Your task to perform on an android device: Add dell xps to the cart on costco.com Image 0: 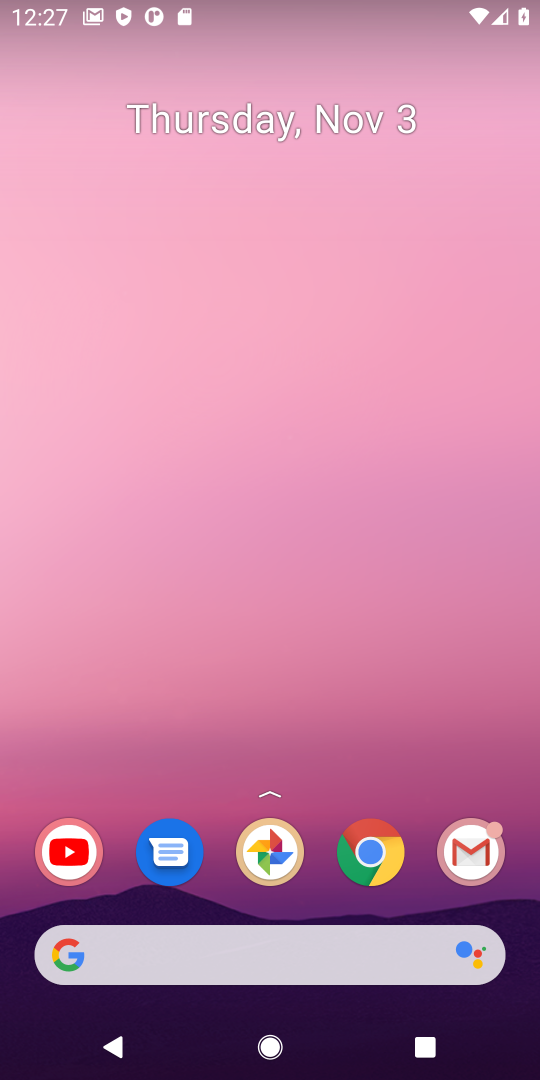
Step 0: click (366, 860)
Your task to perform on an android device: Add dell xps to the cart on costco.com Image 1: 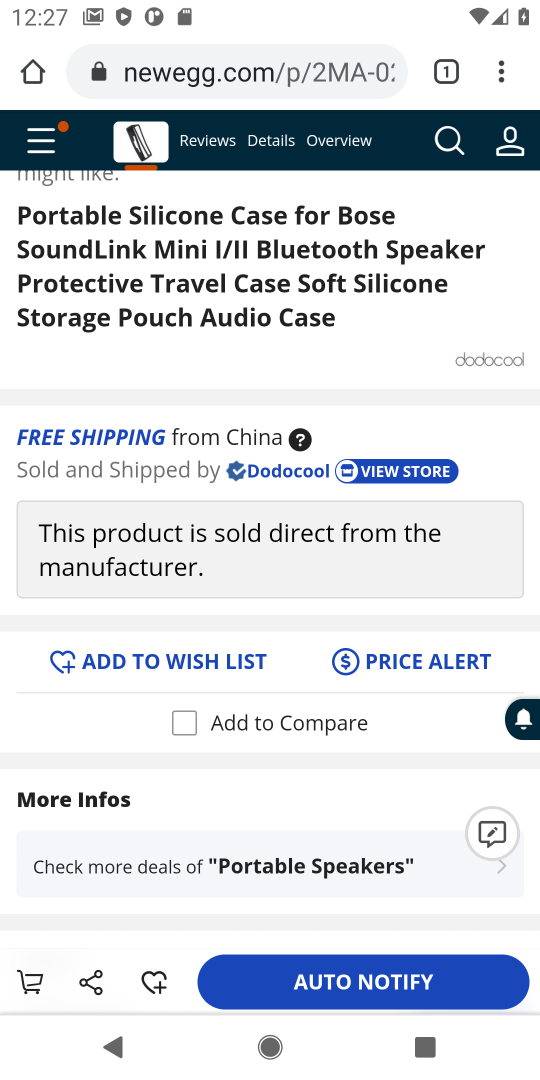
Step 1: click (221, 76)
Your task to perform on an android device: Add dell xps to the cart on costco.com Image 2: 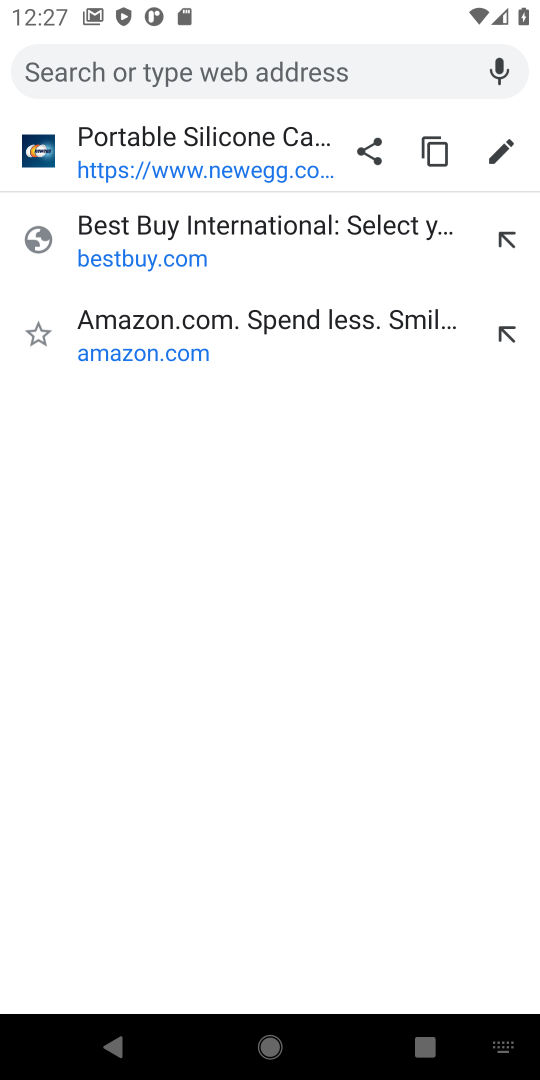
Step 2: type " costco.com"
Your task to perform on an android device: Add dell xps to the cart on costco.com Image 3: 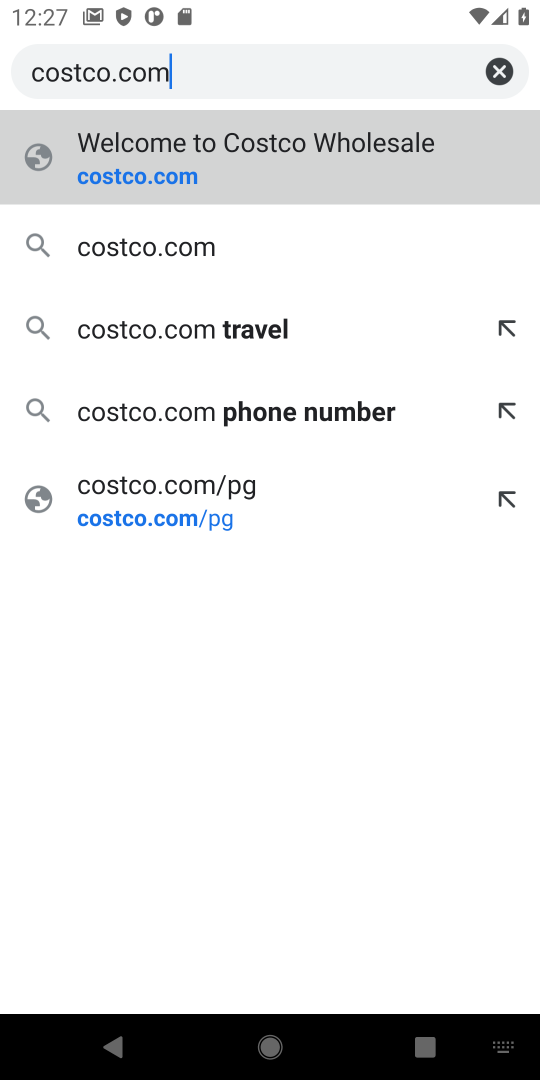
Step 3: click (159, 185)
Your task to perform on an android device: Add dell xps to the cart on costco.com Image 4: 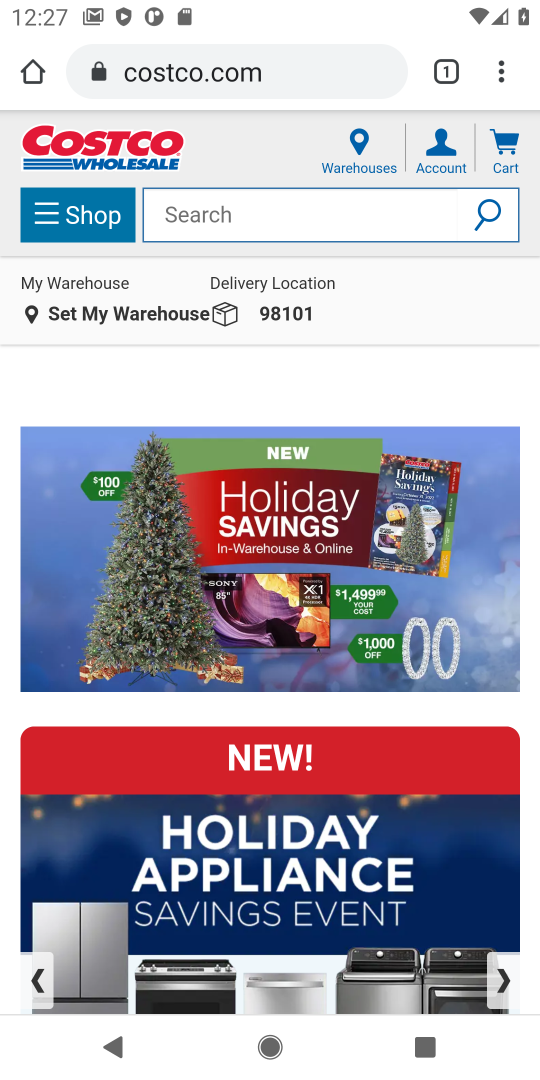
Step 4: click (202, 222)
Your task to perform on an android device: Add dell xps to the cart on costco.com Image 5: 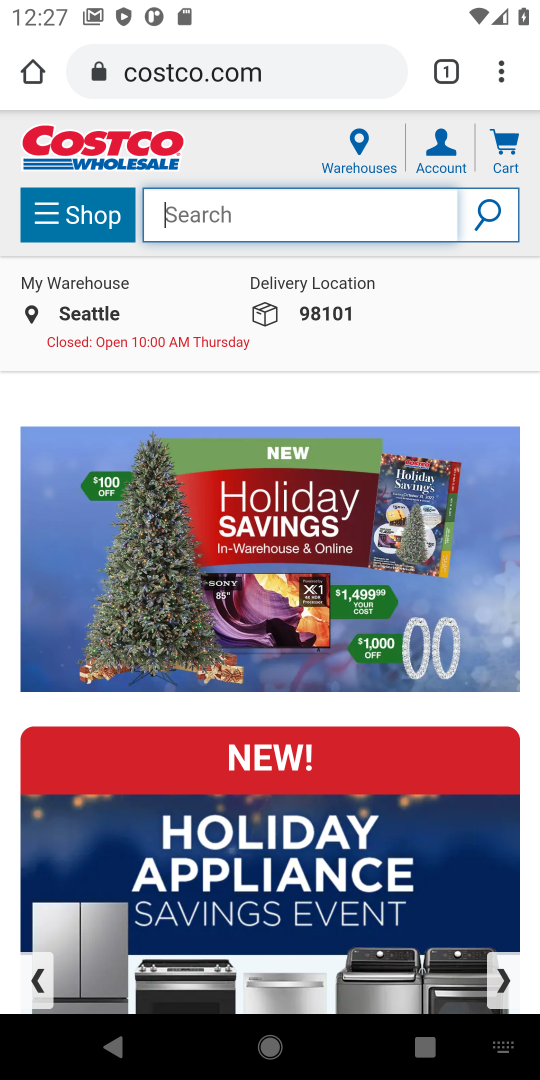
Step 5: type "dell xps "
Your task to perform on an android device: Add dell xps to the cart on costco.com Image 6: 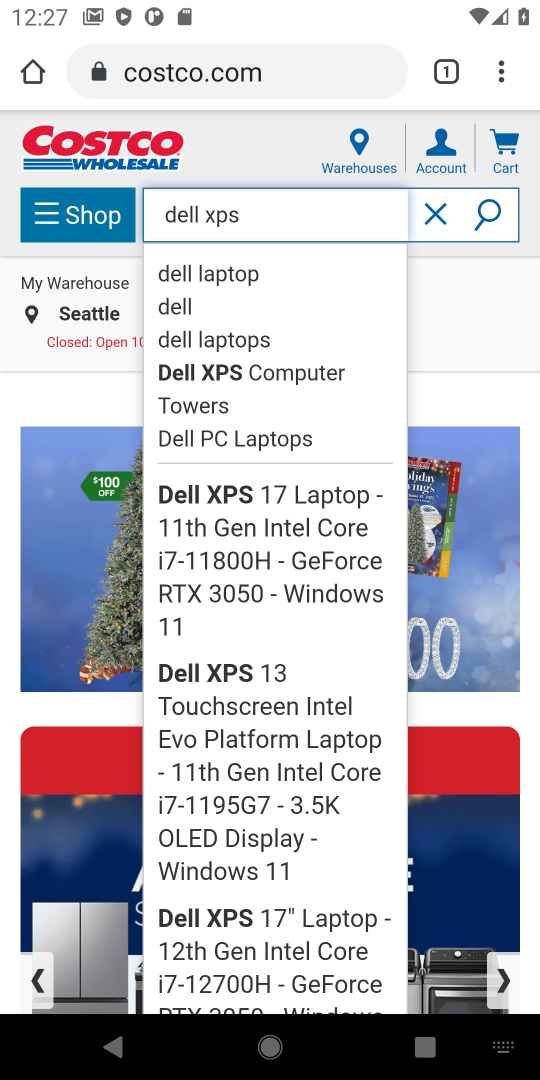
Step 6: click (481, 220)
Your task to perform on an android device: Add dell xps to the cart on costco.com Image 7: 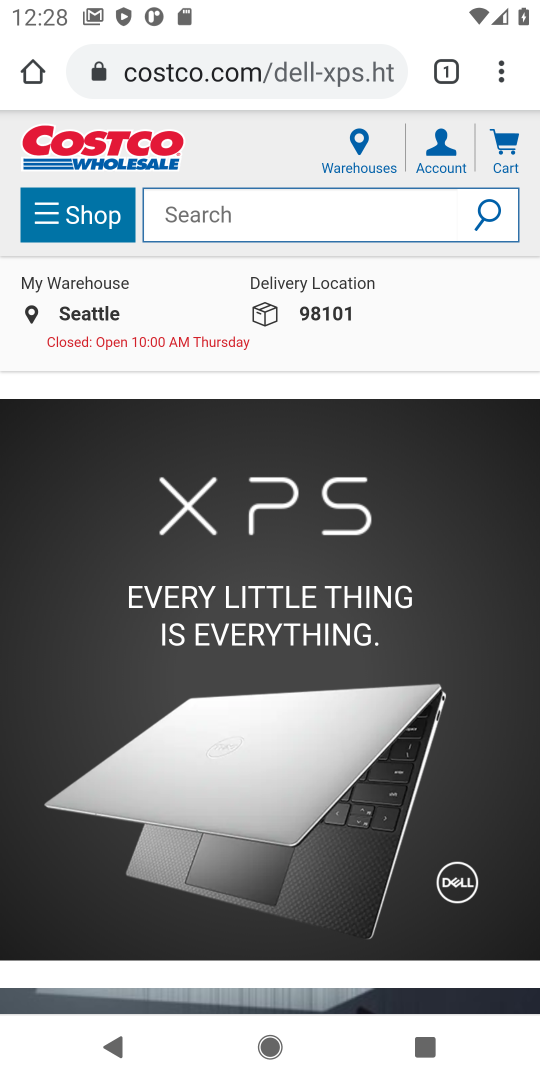
Step 7: task complete